Your task to perform on an android device: install app "Lyft - Rideshare, Bikes, Scooters & Transit" Image 0: 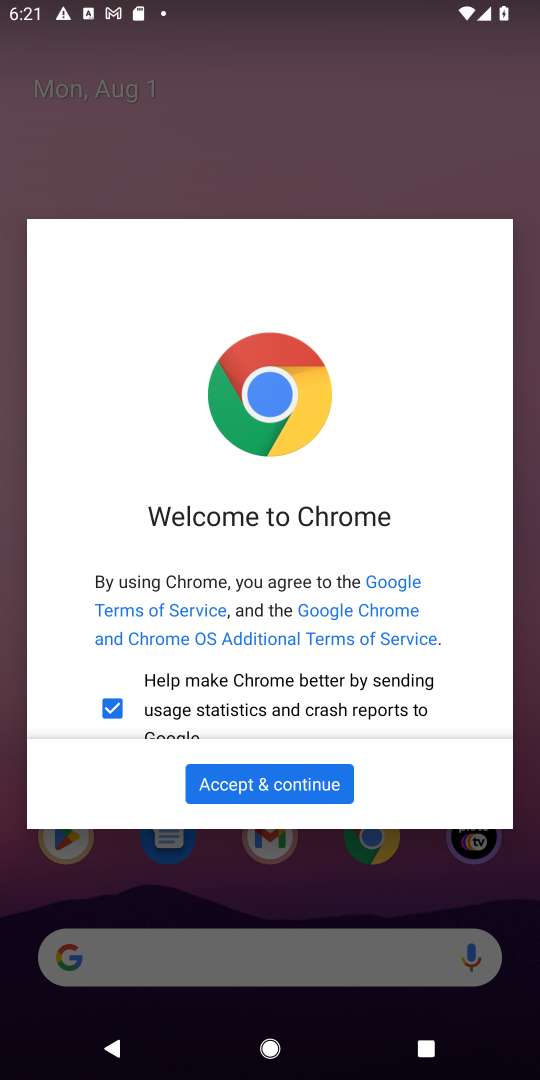
Step 0: press home button
Your task to perform on an android device: install app "Lyft - Rideshare, Bikes, Scooters & Transit" Image 1: 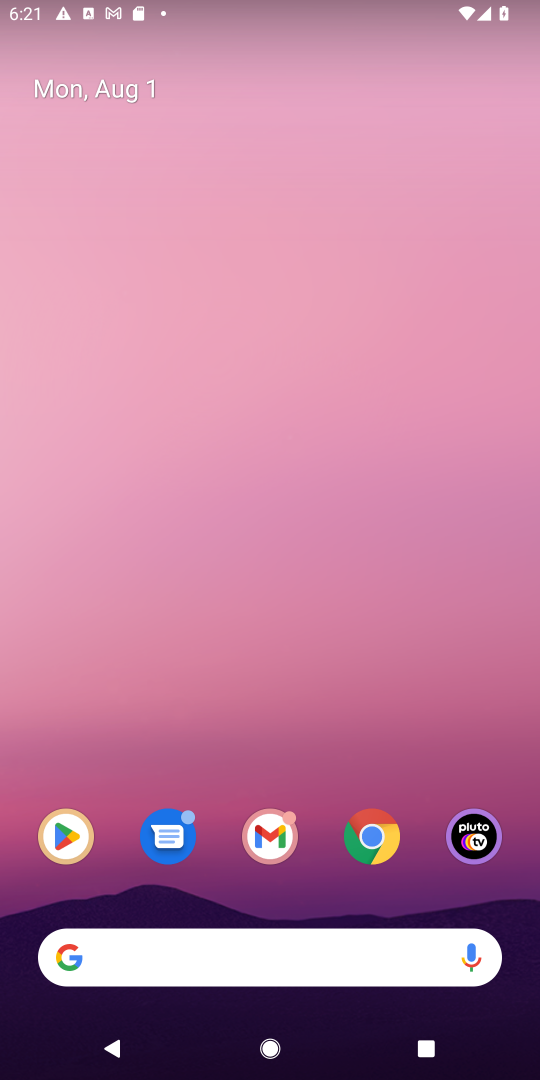
Step 1: click (54, 847)
Your task to perform on an android device: install app "Lyft - Rideshare, Bikes, Scooters & Transit" Image 2: 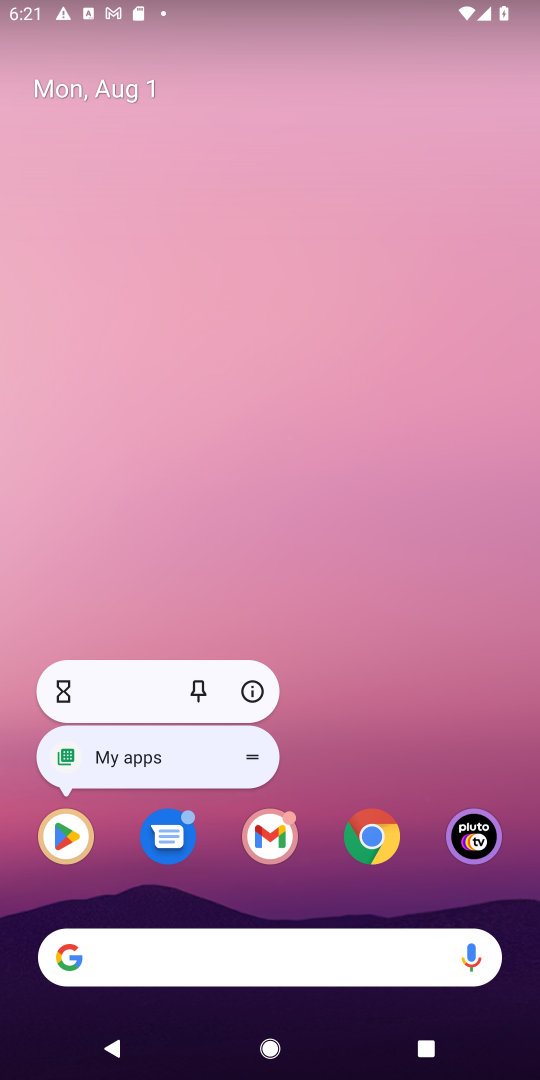
Step 2: click (57, 838)
Your task to perform on an android device: install app "Lyft - Rideshare, Bikes, Scooters & Transit" Image 3: 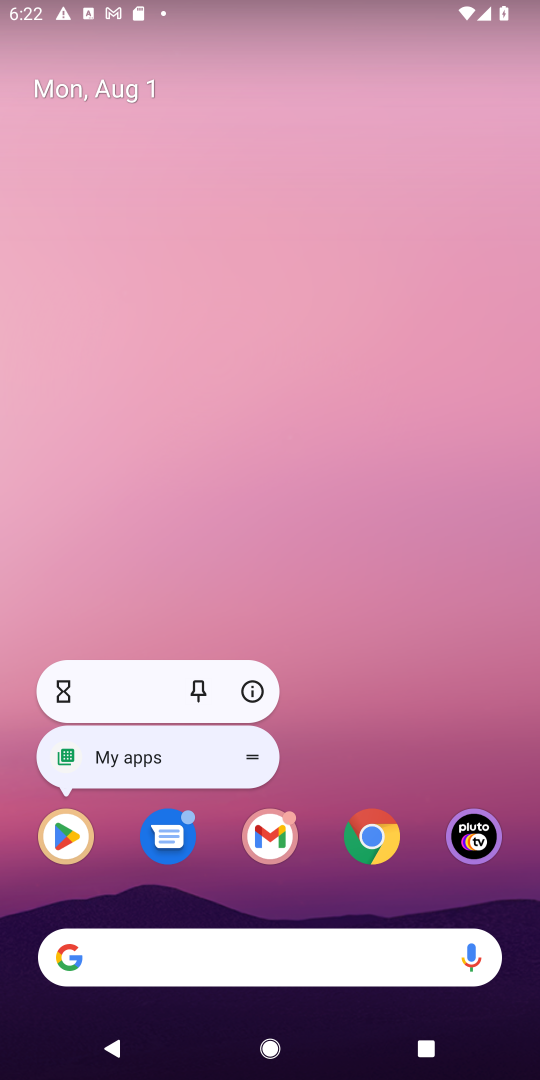
Step 3: click (57, 838)
Your task to perform on an android device: install app "Lyft - Rideshare, Bikes, Scooters & Transit" Image 4: 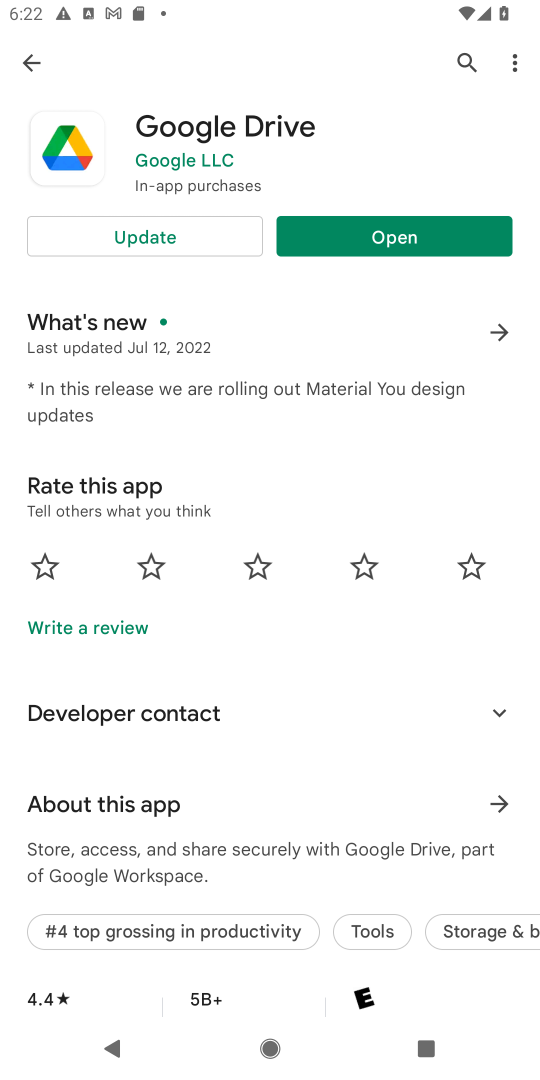
Step 4: click (57, 838)
Your task to perform on an android device: install app "Lyft - Rideshare, Bikes, Scooters & Transit" Image 5: 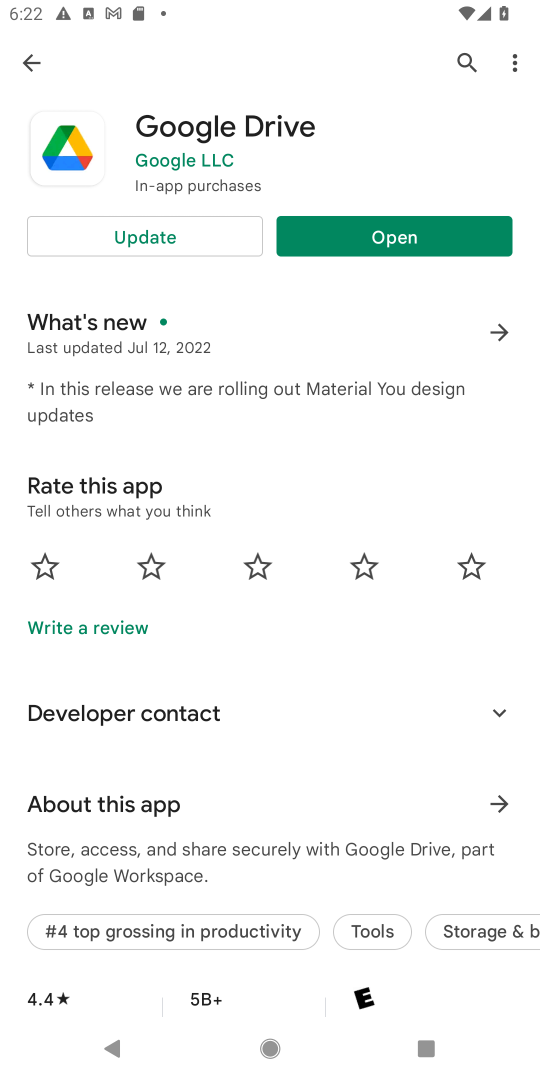
Step 5: click (455, 60)
Your task to perform on an android device: install app "Lyft - Rideshare, Bikes, Scooters & Transit" Image 6: 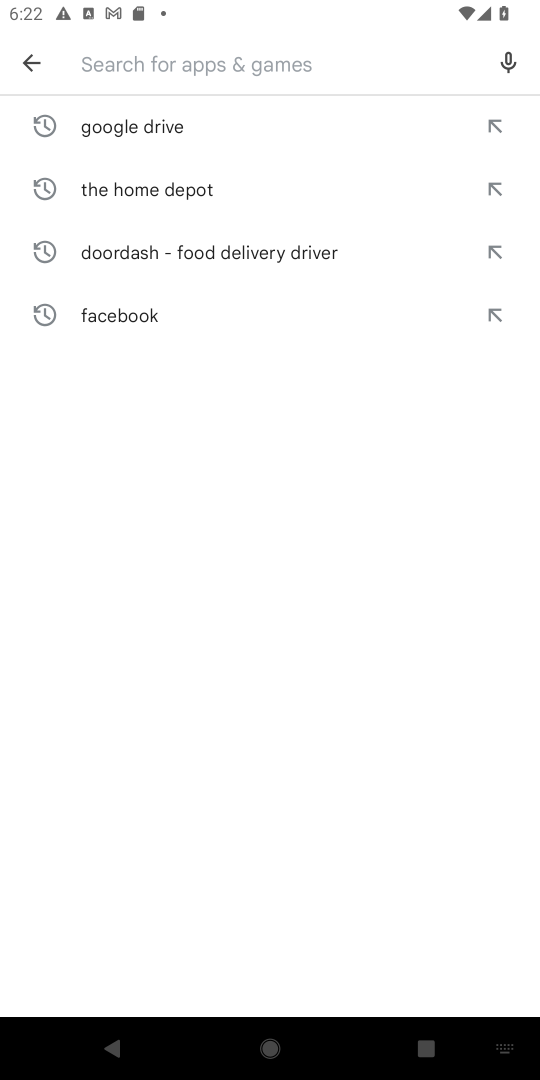
Step 6: type "Lyft - Rideshare, Bikes, Scooters & Transit"
Your task to perform on an android device: install app "Lyft - Rideshare, Bikes, Scooters & Transit" Image 7: 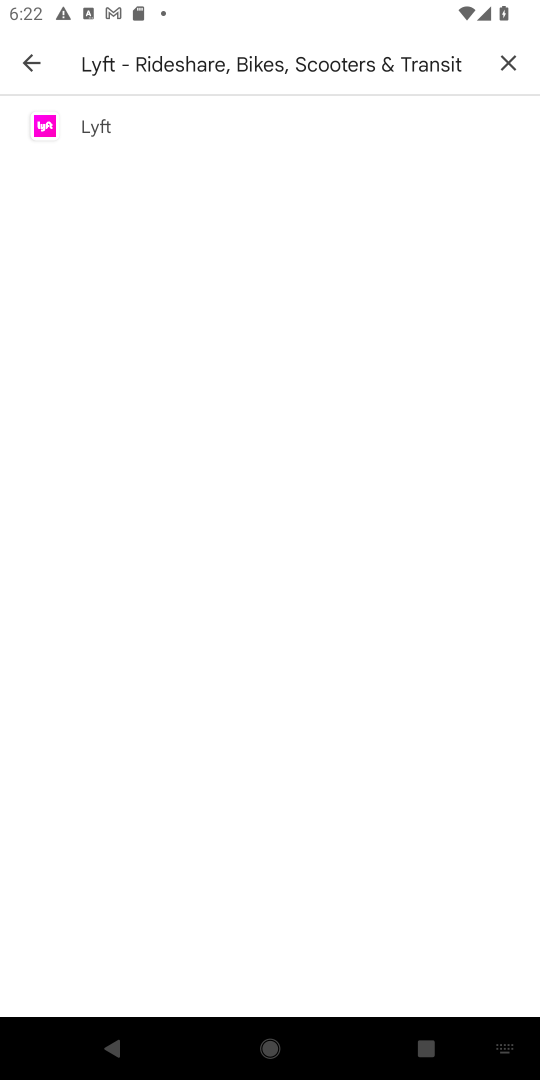
Step 7: click (108, 120)
Your task to perform on an android device: install app "Lyft - Rideshare, Bikes, Scooters & Transit" Image 8: 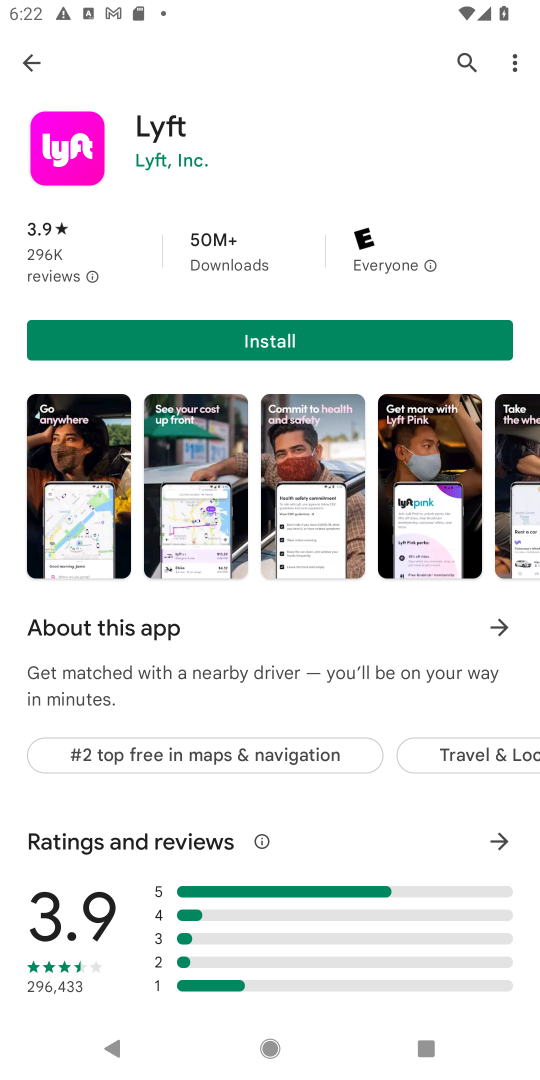
Step 8: click (275, 342)
Your task to perform on an android device: install app "Lyft - Rideshare, Bikes, Scooters & Transit" Image 9: 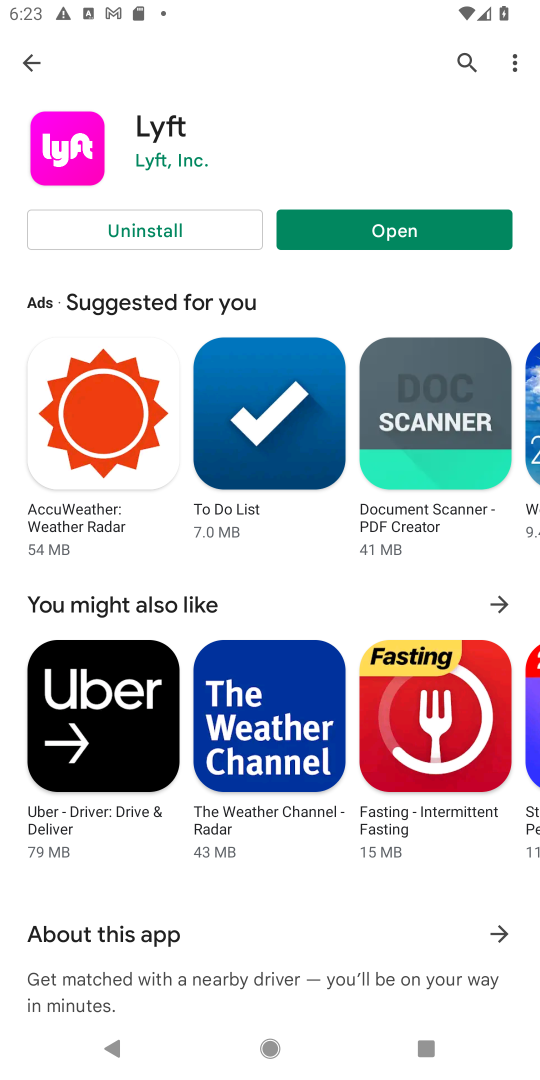
Step 9: task complete